Your task to perform on an android device: Play the last video I watched on Youtube Image 0: 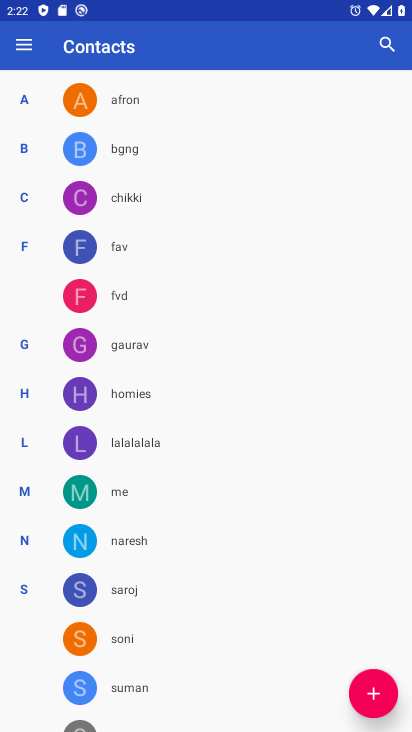
Step 0: press home button
Your task to perform on an android device: Play the last video I watched on Youtube Image 1: 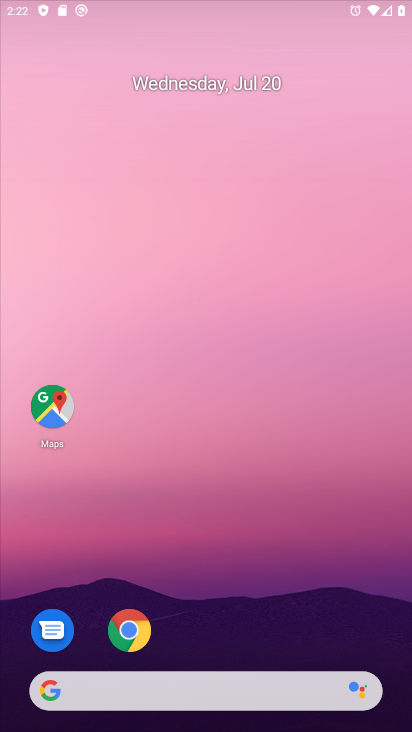
Step 1: drag from (16, 498) to (279, 89)
Your task to perform on an android device: Play the last video I watched on Youtube Image 2: 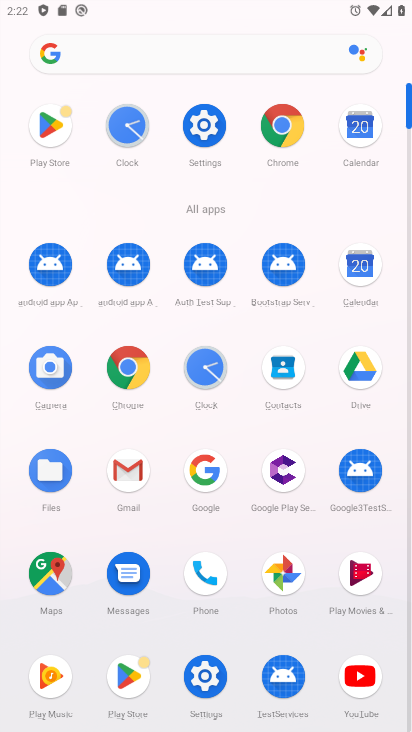
Step 2: click (347, 694)
Your task to perform on an android device: Play the last video I watched on Youtube Image 3: 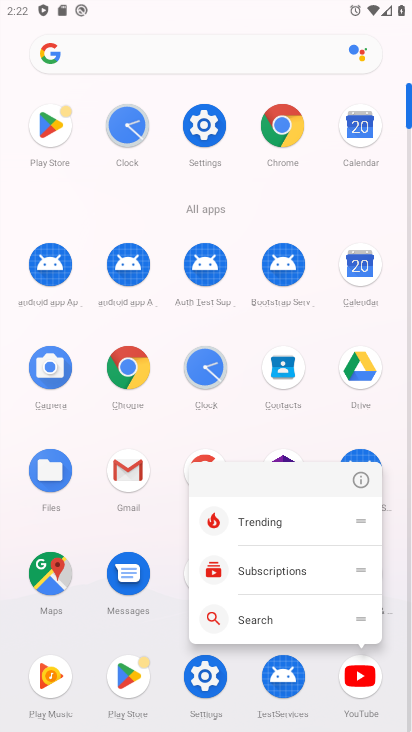
Step 3: click (368, 683)
Your task to perform on an android device: Play the last video I watched on Youtube Image 4: 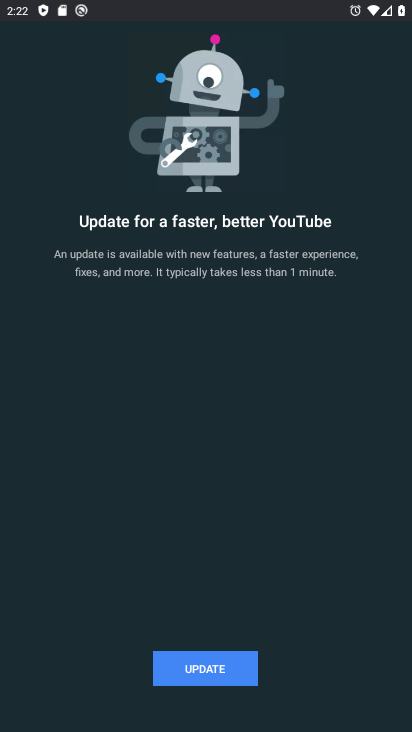
Step 4: click (208, 672)
Your task to perform on an android device: Play the last video I watched on Youtube Image 5: 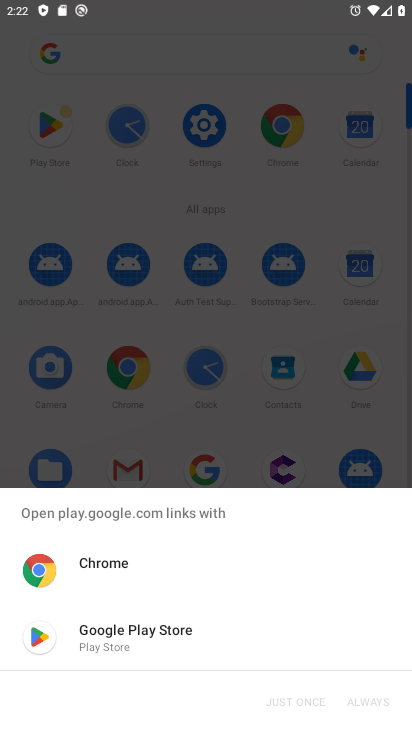
Step 5: task complete